Your task to perform on an android device: What's the weather going to be this weekend? Image 0: 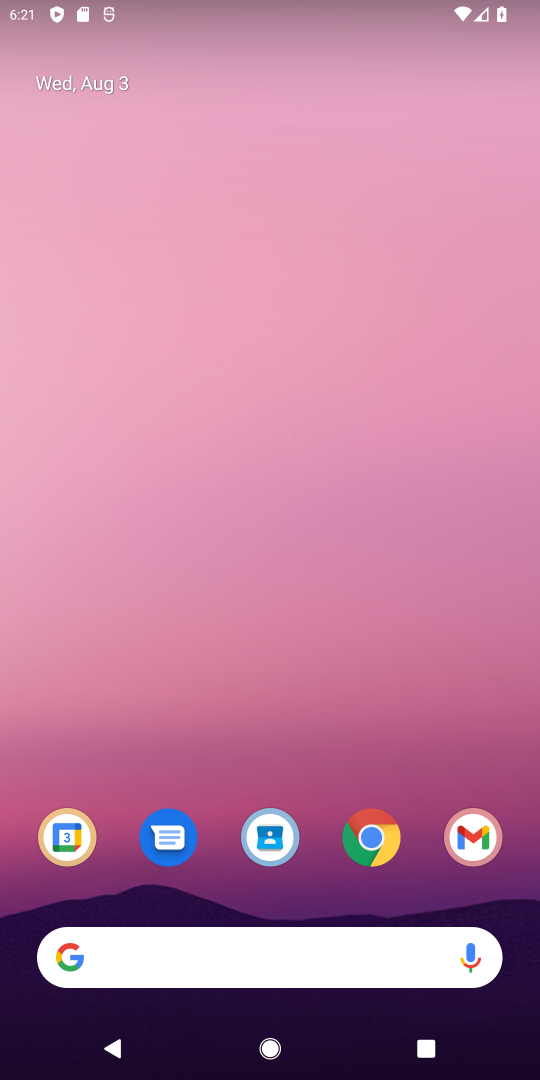
Step 0: press home button
Your task to perform on an android device: What's the weather going to be this weekend? Image 1: 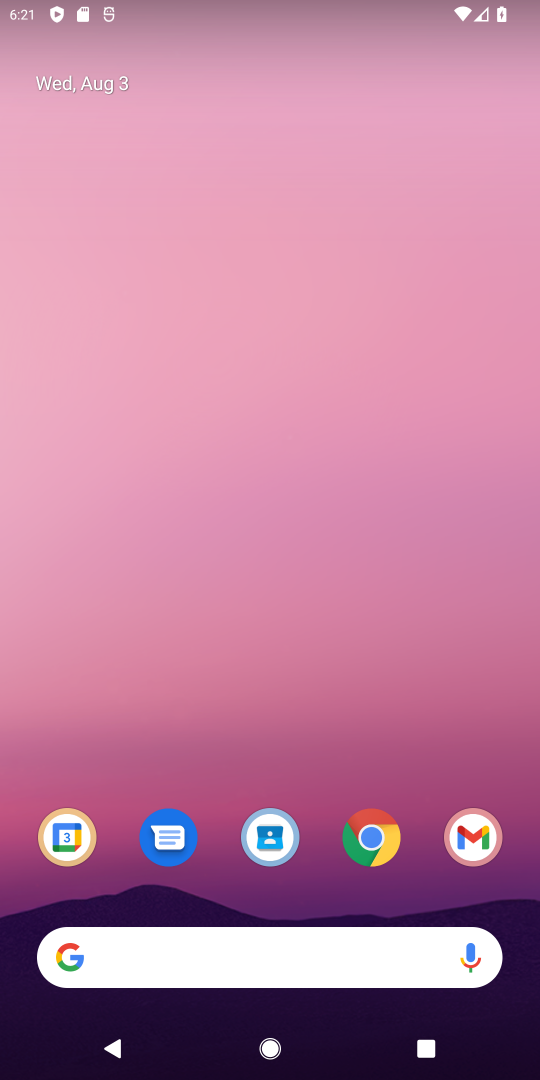
Step 1: click (68, 958)
Your task to perform on an android device: What's the weather going to be this weekend? Image 2: 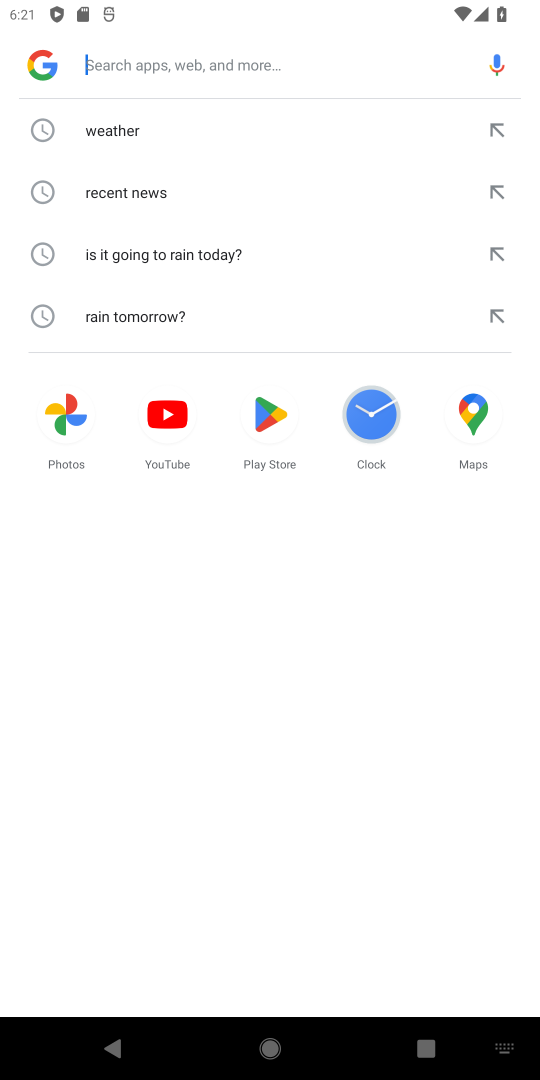
Step 2: type "What's the weather going to be this weekend?"
Your task to perform on an android device: What's the weather going to be this weekend? Image 3: 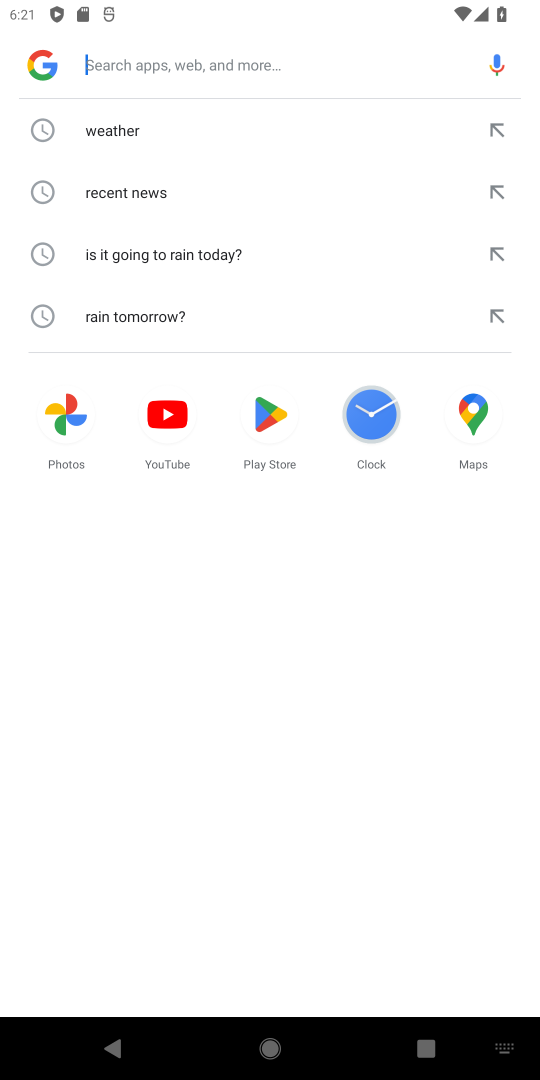
Step 3: click (152, 63)
Your task to perform on an android device: What's the weather going to be this weekend? Image 4: 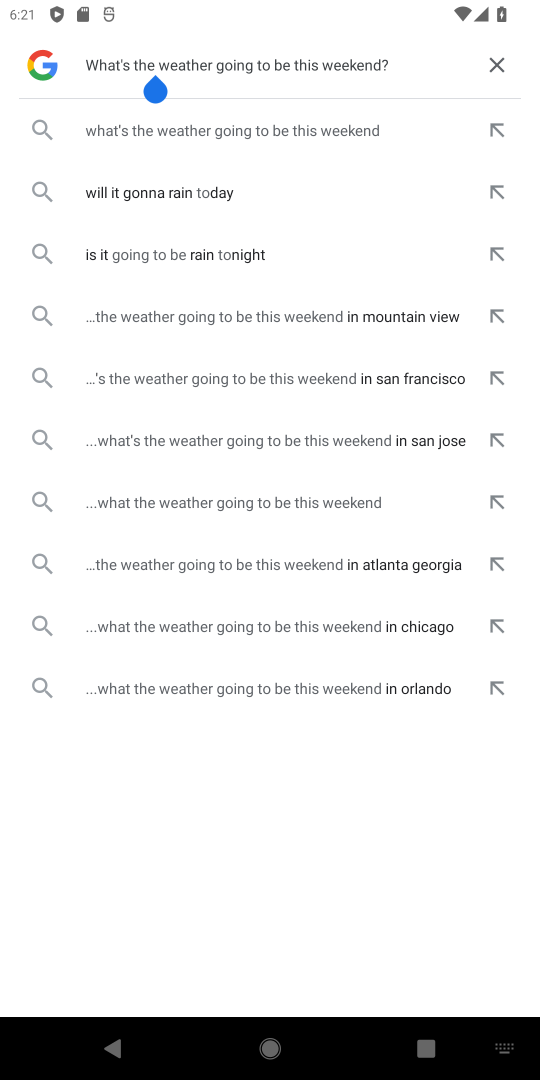
Step 4: press enter
Your task to perform on an android device: What's the weather going to be this weekend? Image 5: 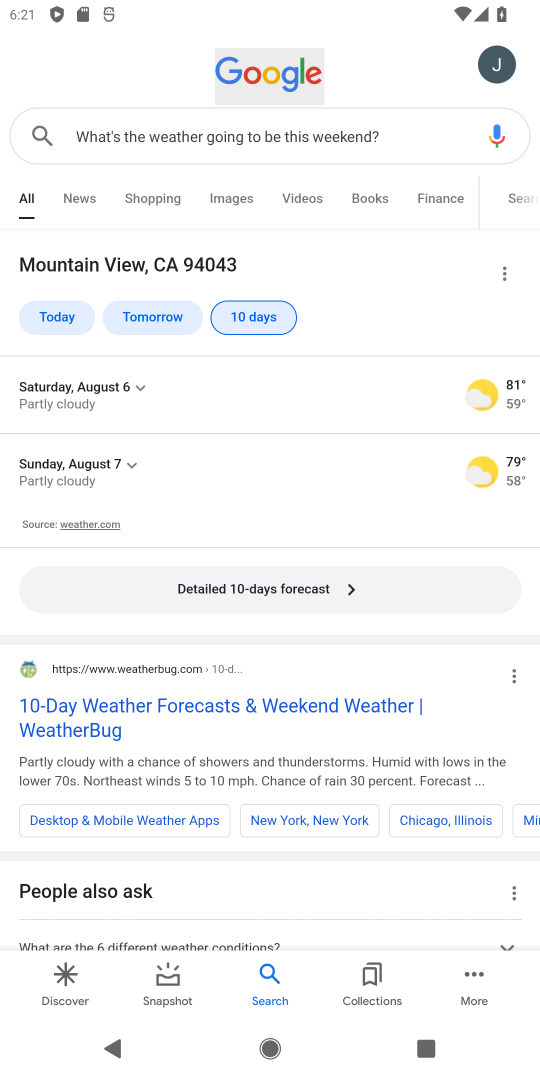
Step 5: task complete